Your task to perform on an android device: Open settings on Google Maps Image 0: 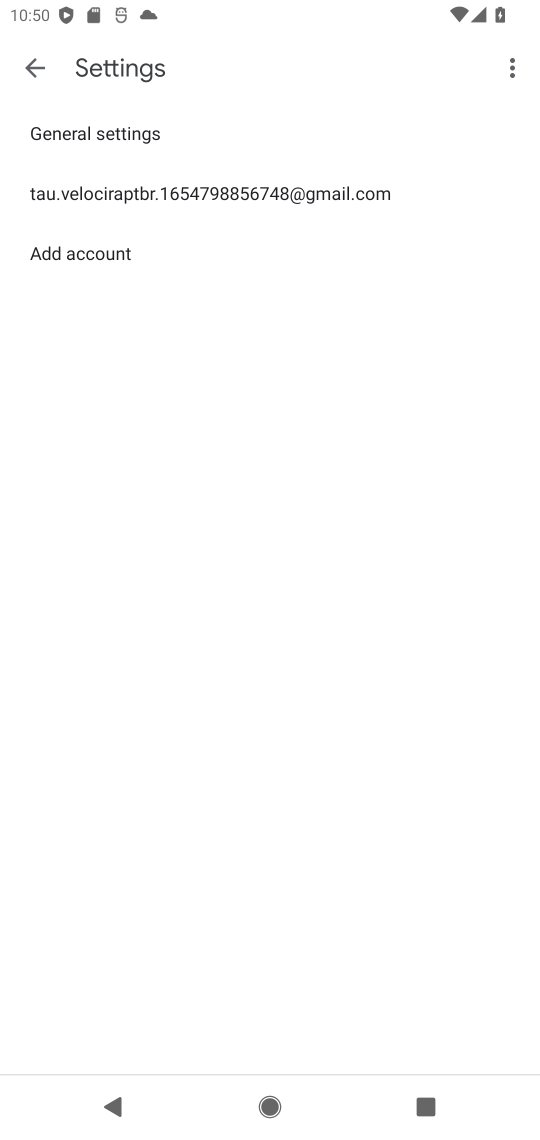
Step 0: click (28, 71)
Your task to perform on an android device: Open settings on Google Maps Image 1: 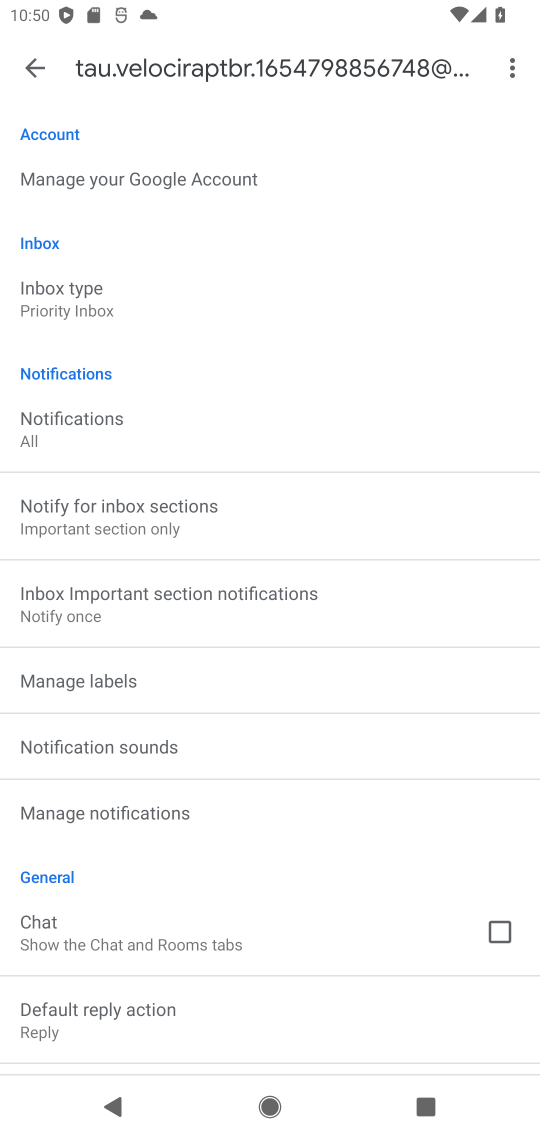
Step 1: click (28, 71)
Your task to perform on an android device: Open settings on Google Maps Image 2: 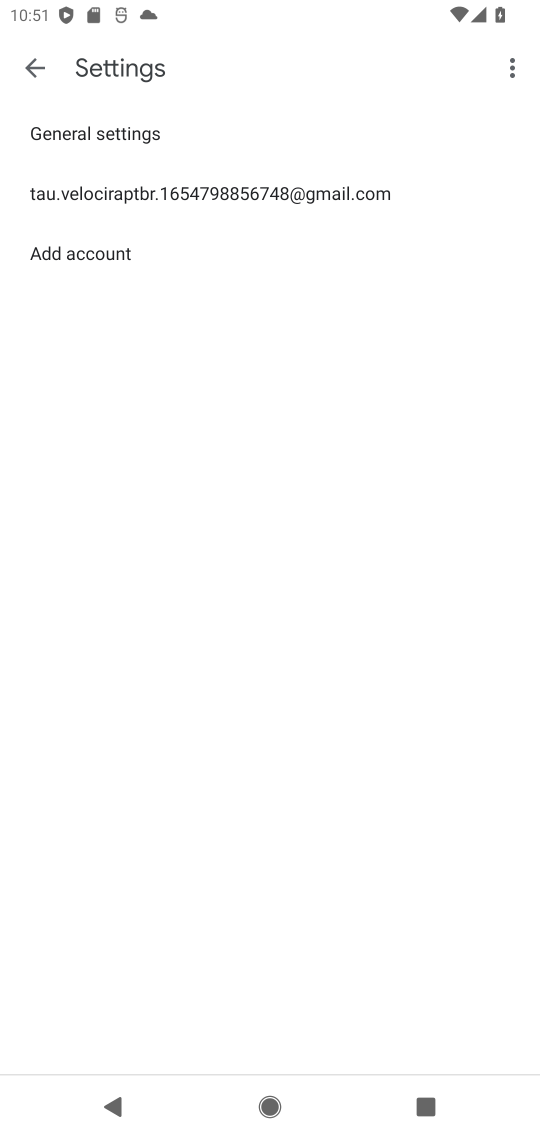
Step 2: click (28, 71)
Your task to perform on an android device: Open settings on Google Maps Image 3: 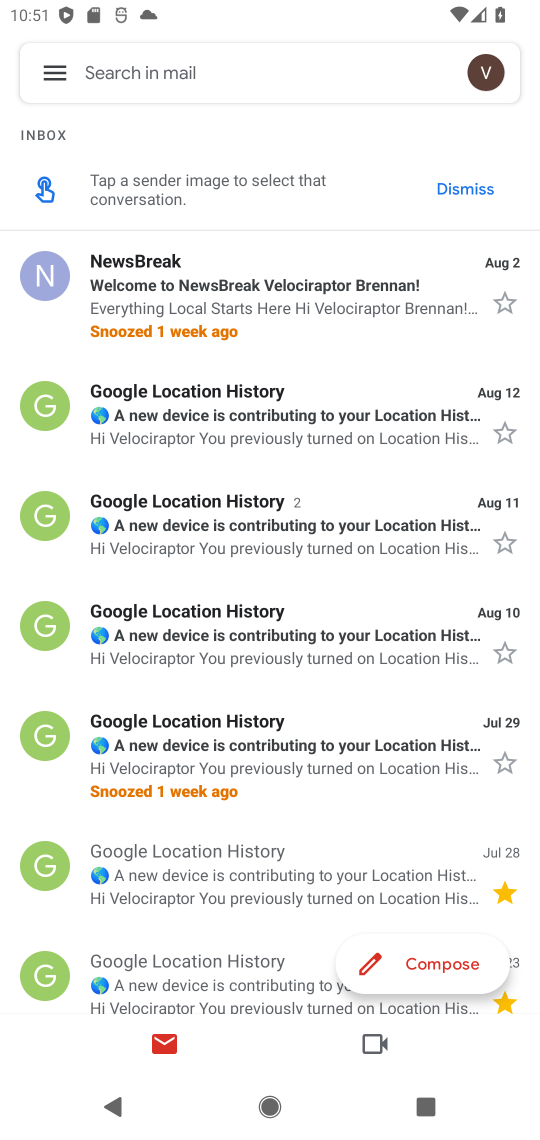
Step 3: press home button
Your task to perform on an android device: Open settings on Google Maps Image 4: 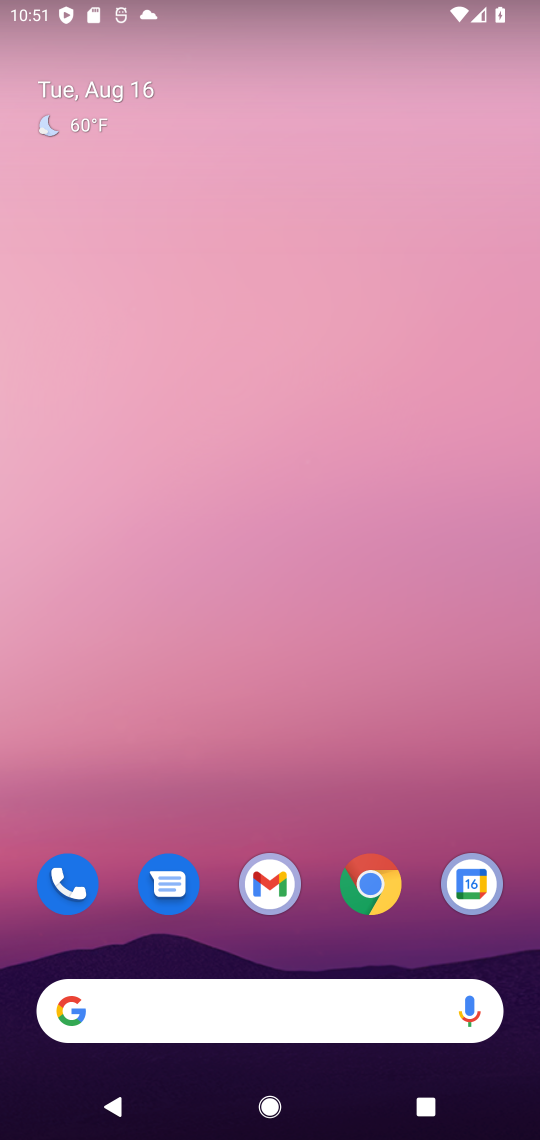
Step 4: drag from (236, 678) to (251, 10)
Your task to perform on an android device: Open settings on Google Maps Image 5: 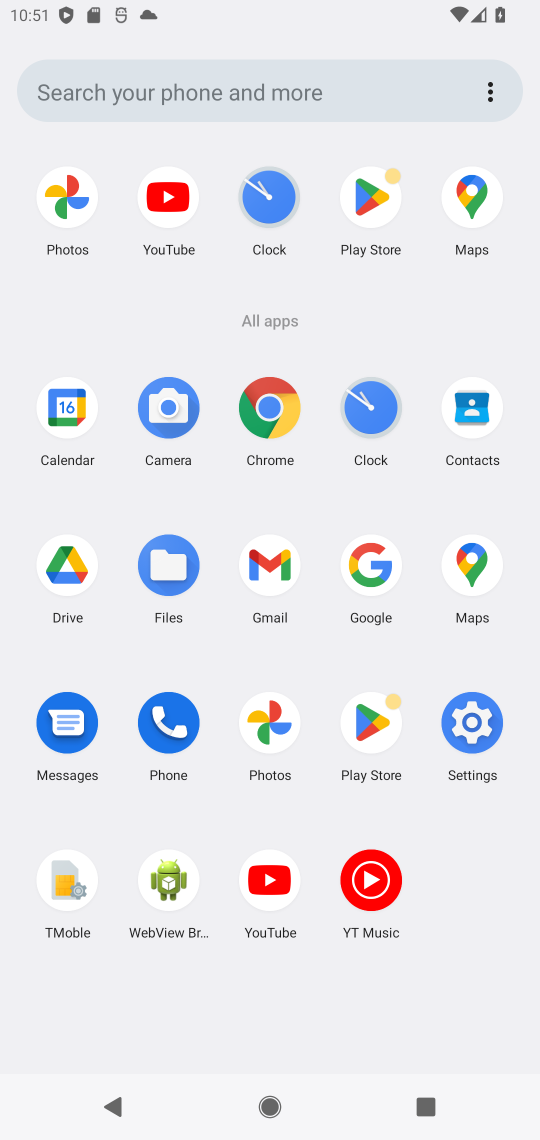
Step 5: click (478, 560)
Your task to perform on an android device: Open settings on Google Maps Image 6: 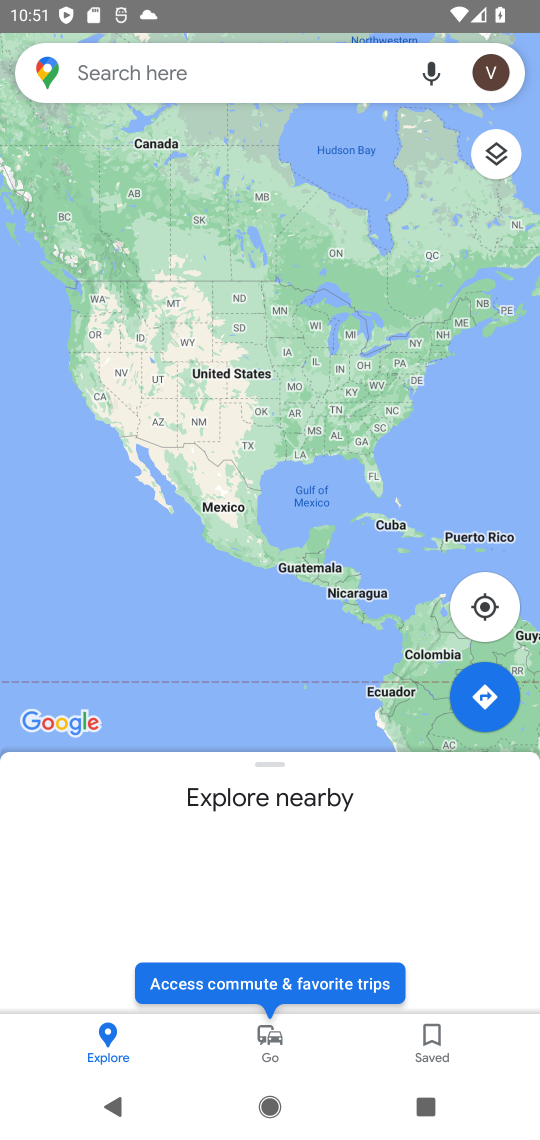
Step 6: click (495, 76)
Your task to perform on an android device: Open settings on Google Maps Image 7: 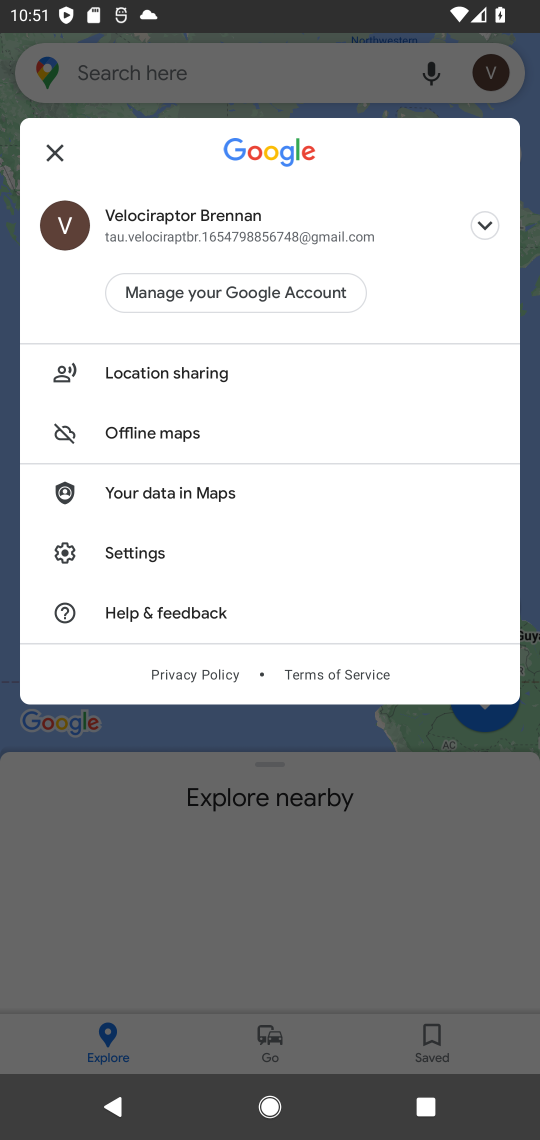
Step 7: click (140, 544)
Your task to perform on an android device: Open settings on Google Maps Image 8: 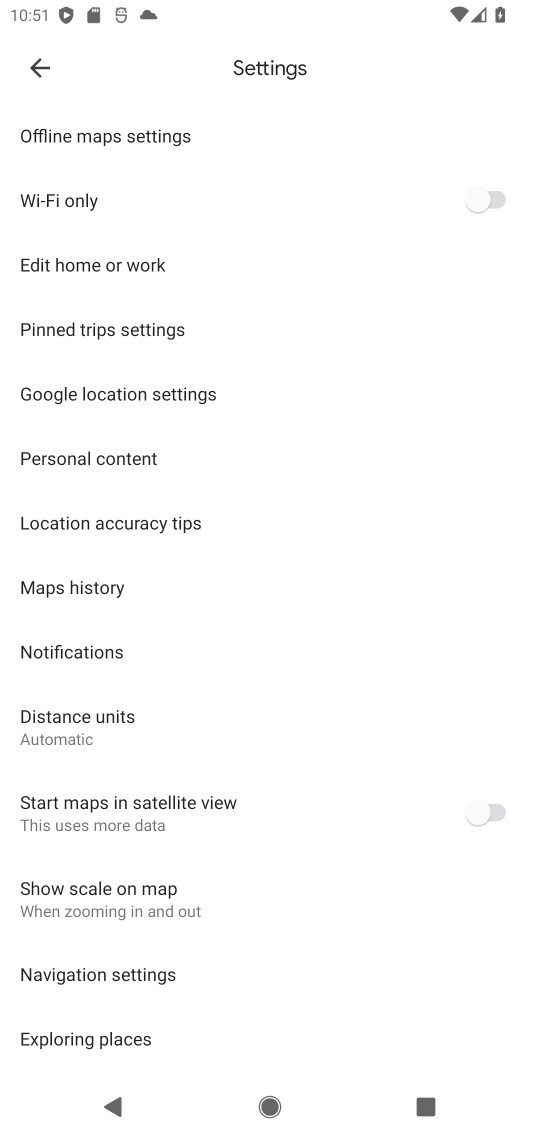
Step 8: task complete